Your task to perform on an android device: toggle sleep mode Image 0: 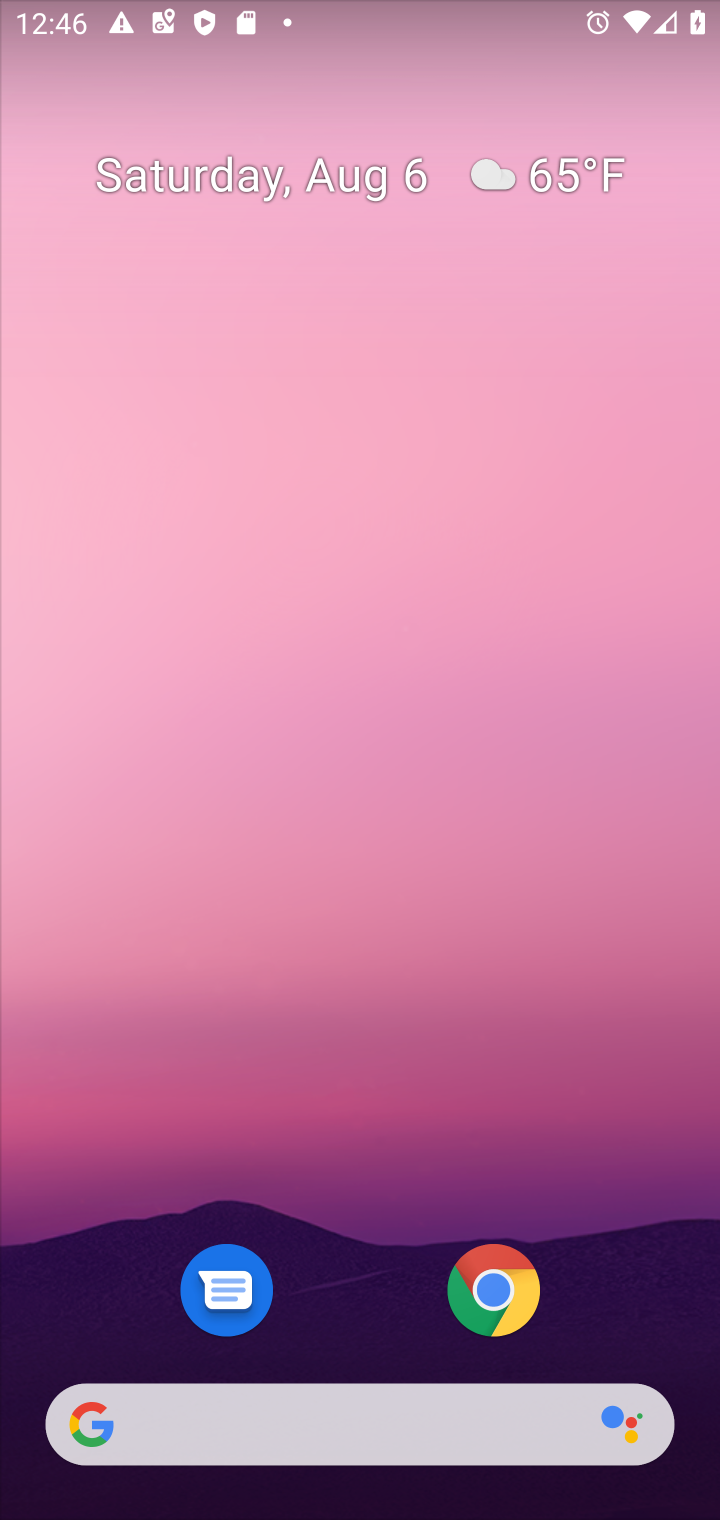
Step 0: press home button
Your task to perform on an android device: toggle sleep mode Image 1: 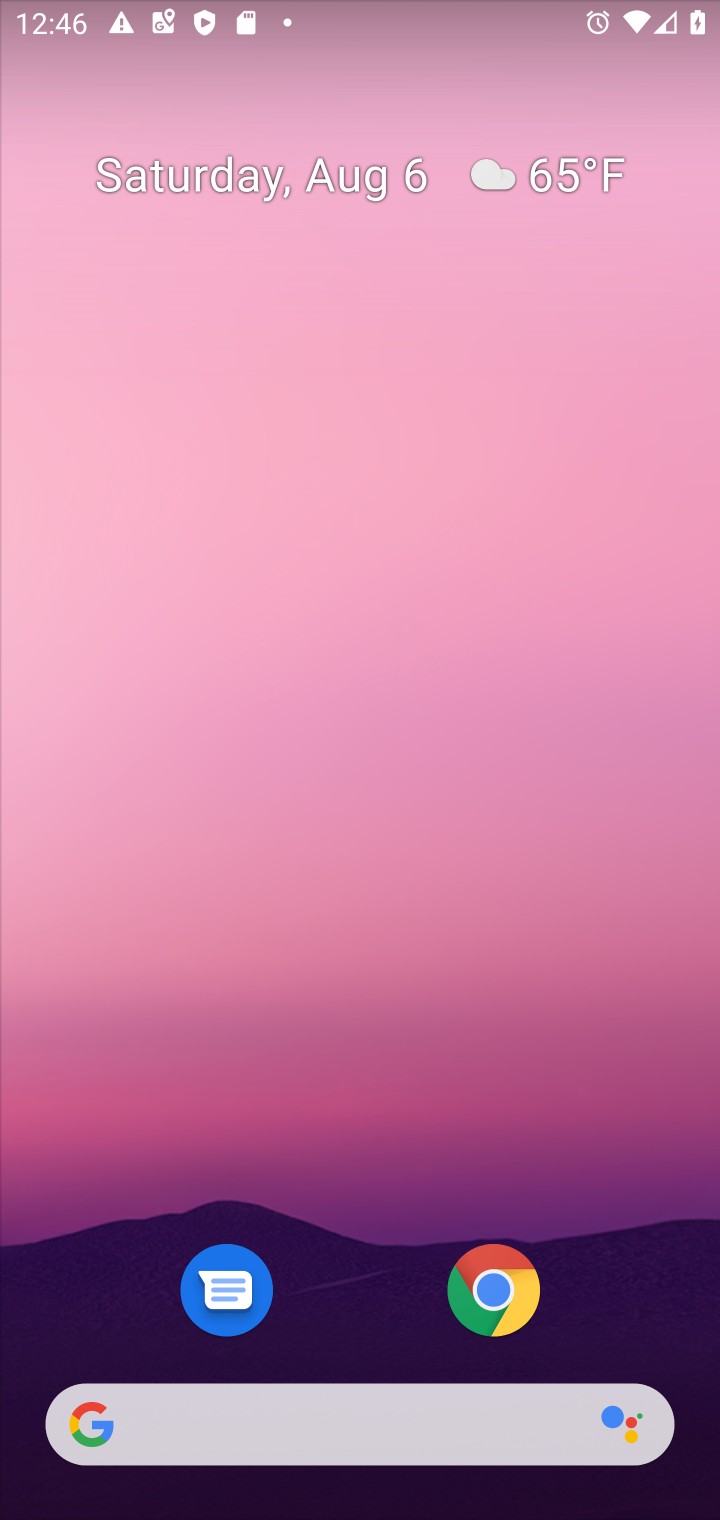
Step 1: drag from (394, 592) to (418, 173)
Your task to perform on an android device: toggle sleep mode Image 2: 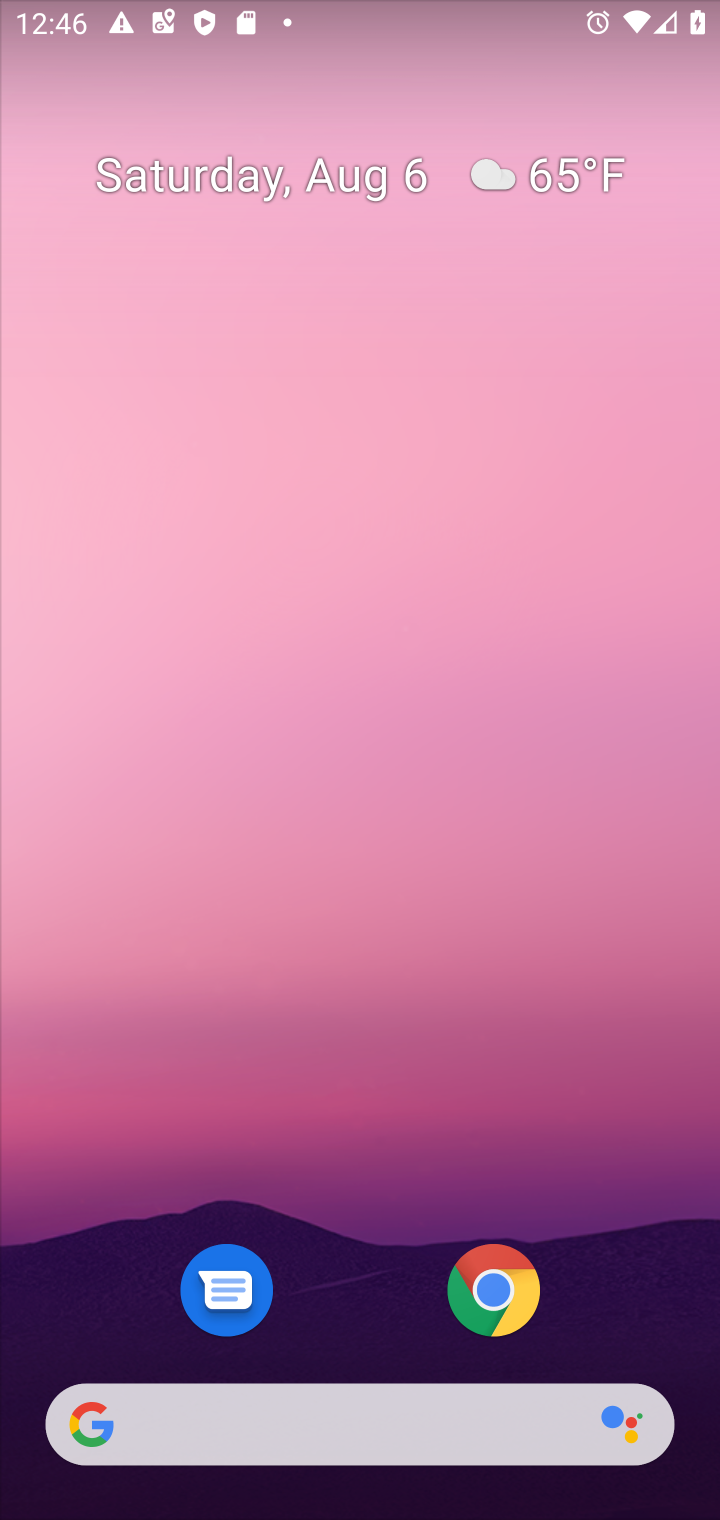
Step 2: drag from (389, 1283) to (447, 316)
Your task to perform on an android device: toggle sleep mode Image 3: 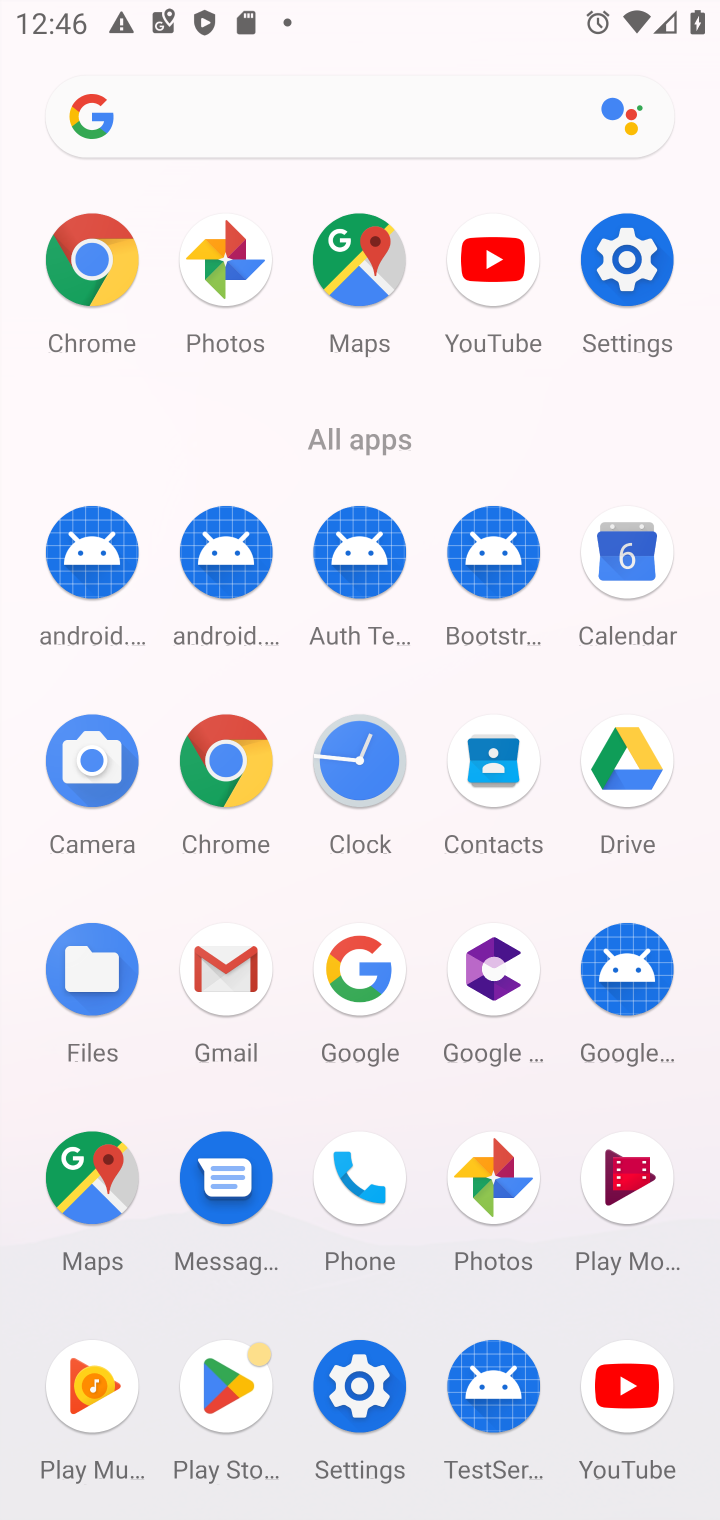
Step 3: click (625, 238)
Your task to perform on an android device: toggle sleep mode Image 4: 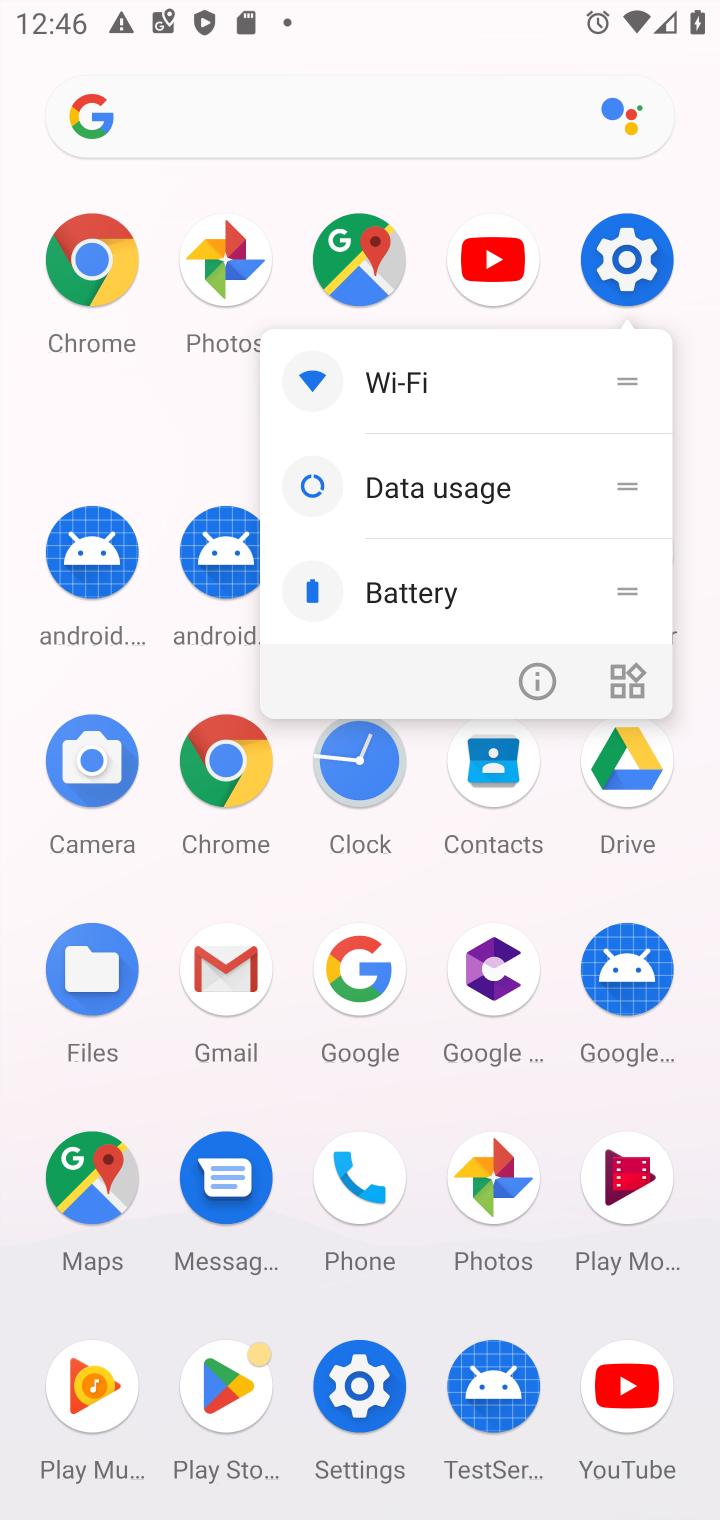
Step 4: click (626, 243)
Your task to perform on an android device: toggle sleep mode Image 5: 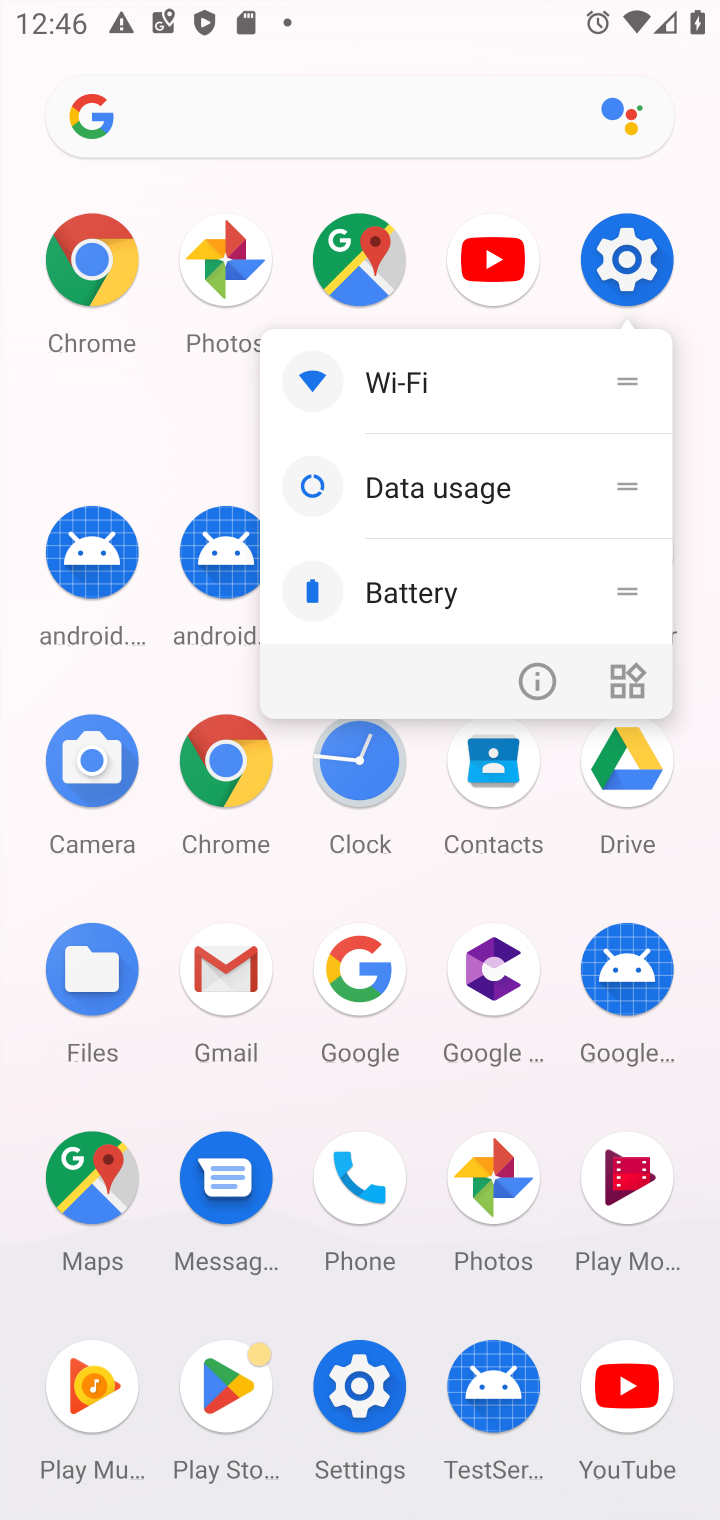
Step 5: click (630, 244)
Your task to perform on an android device: toggle sleep mode Image 6: 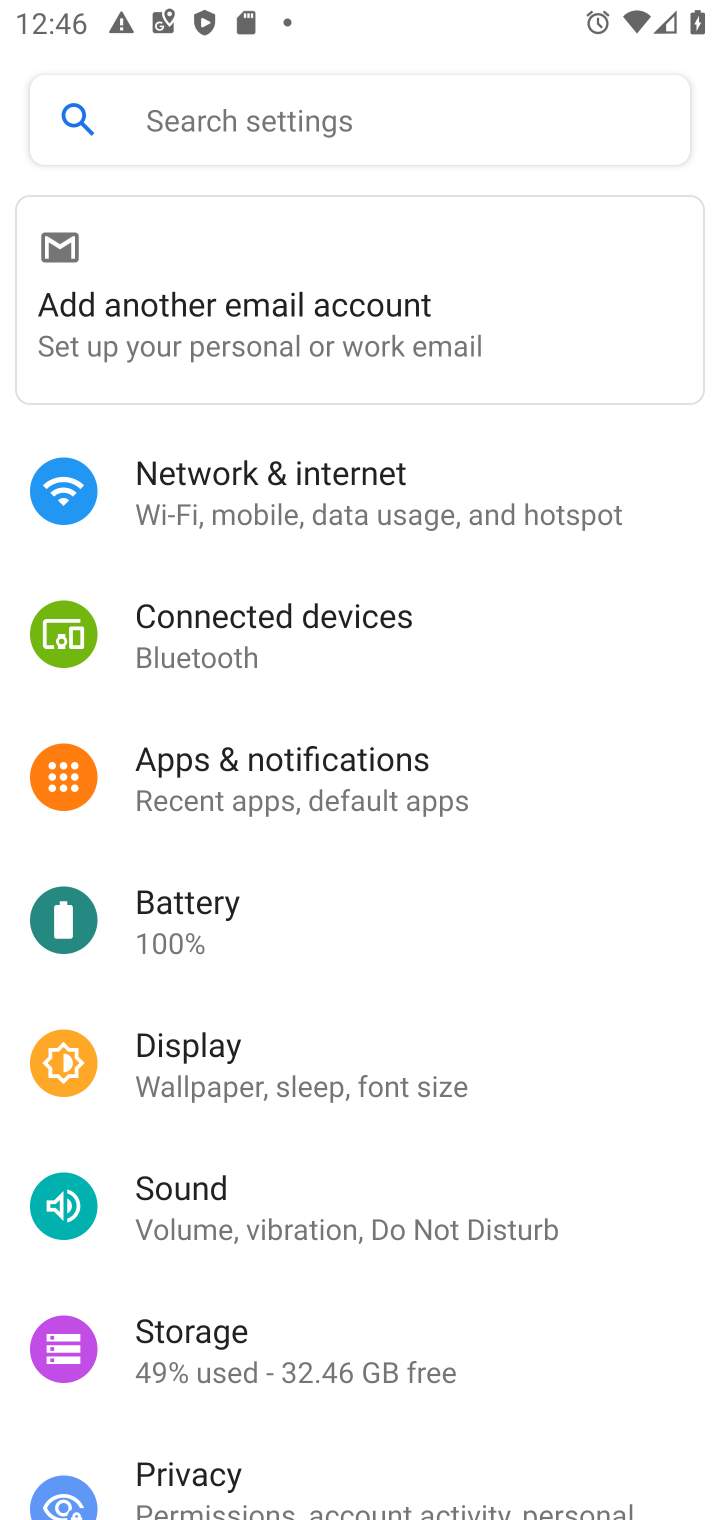
Step 6: click (251, 1050)
Your task to perform on an android device: toggle sleep mode Image 7: 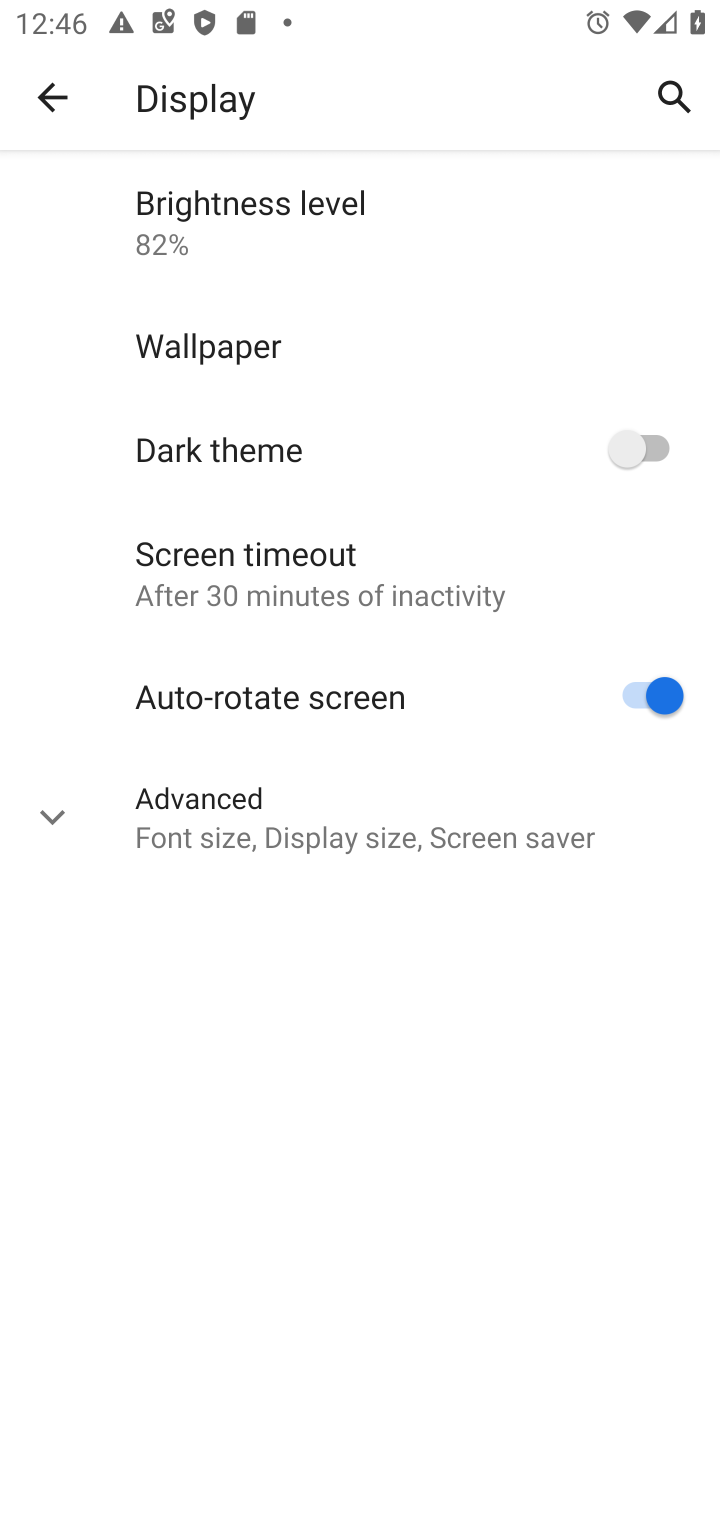
Step 7: click (60, 807)
Your task to perform on an android device: toggle sleep mode Image 8: 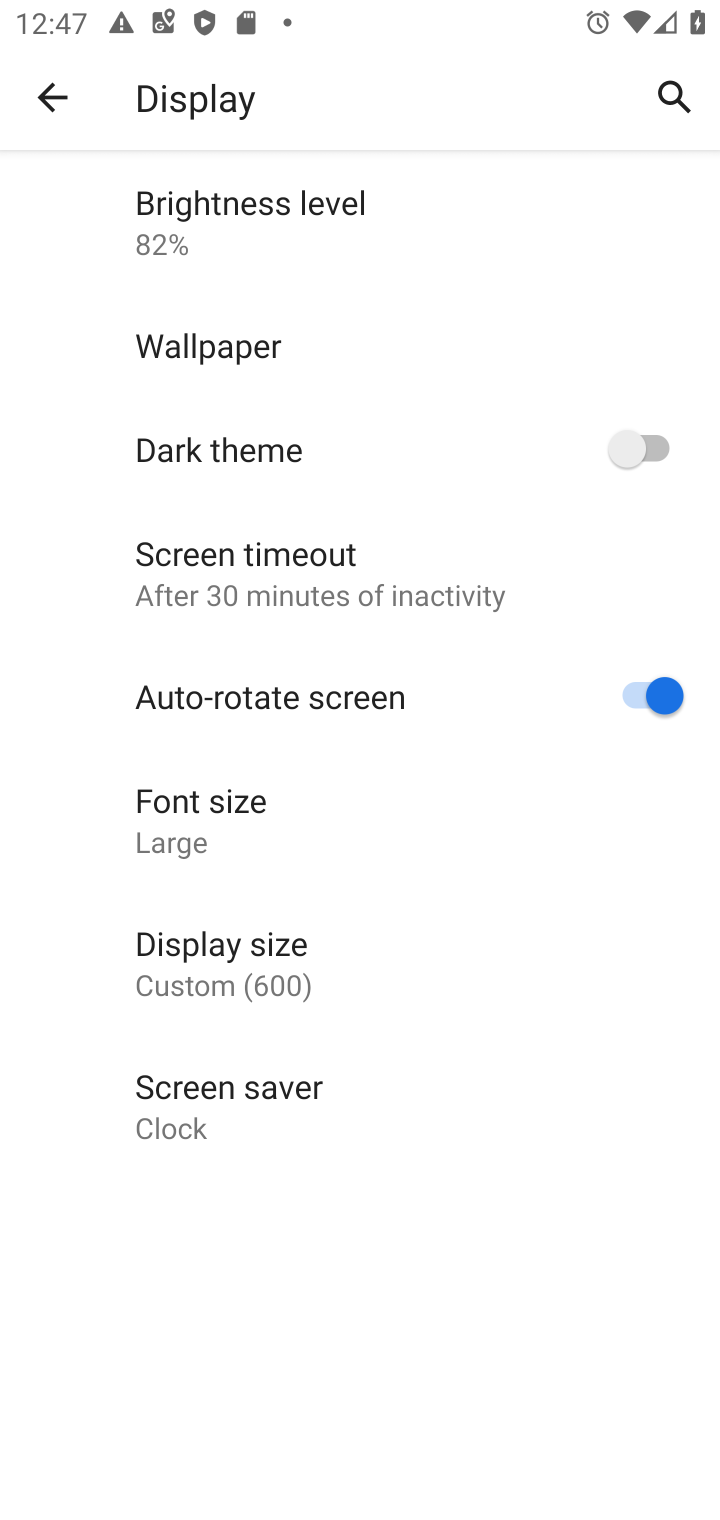
Step 8: task complete